Your task to perform on an android device: open a bookmark in the chrome app Image 0: 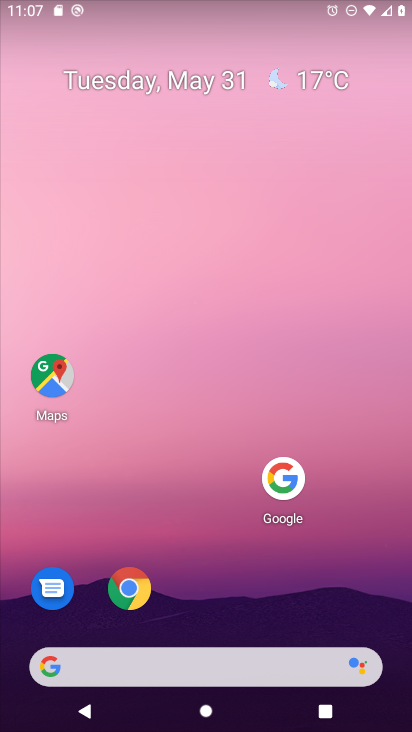
Step 0: press home button
Your task to perform on an android device: open a bookmark in the chrome app Image 1: 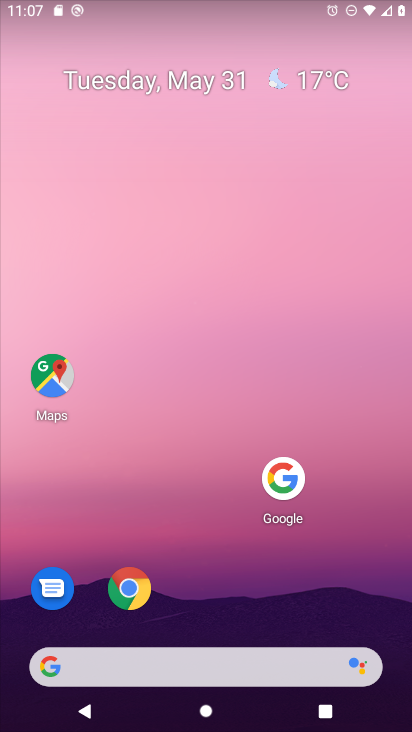
Step 1: click (135, 589)
Your task to perform on an android device: open a bookmark in the chrome app Image 2: 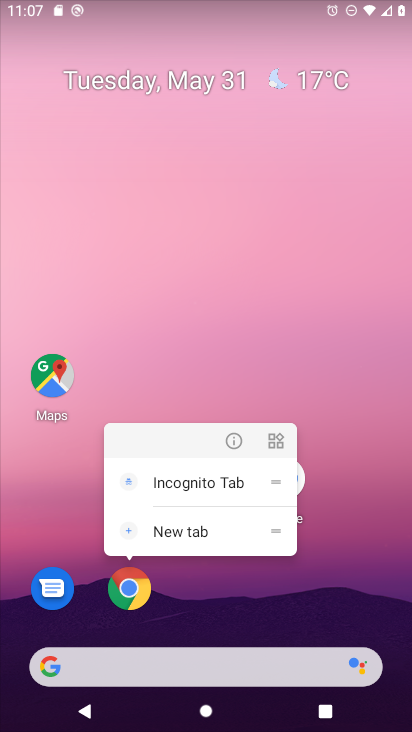
Step 2: click (135, 595)
Your task to perform on an android device: open a bookmark in the chrome app Image 3: 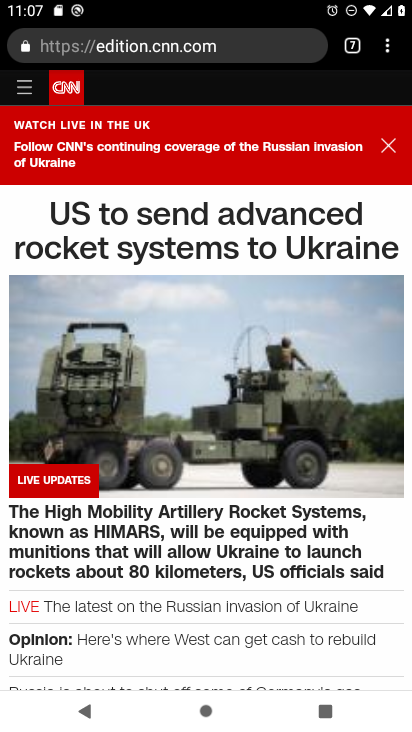
Step 3: task complete